Your task to perform on an android device: Search for vegetarian restaurants on Maps Image 0: 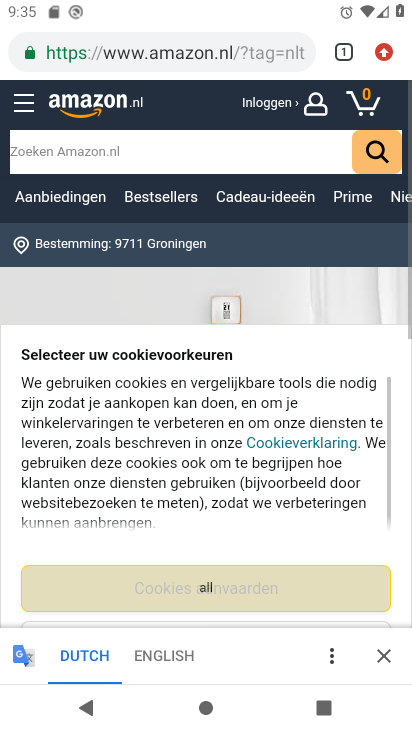
Step 0: press home button
Your task to perform on an android device: Search for vegetarian restaurants on Maps Image 1: 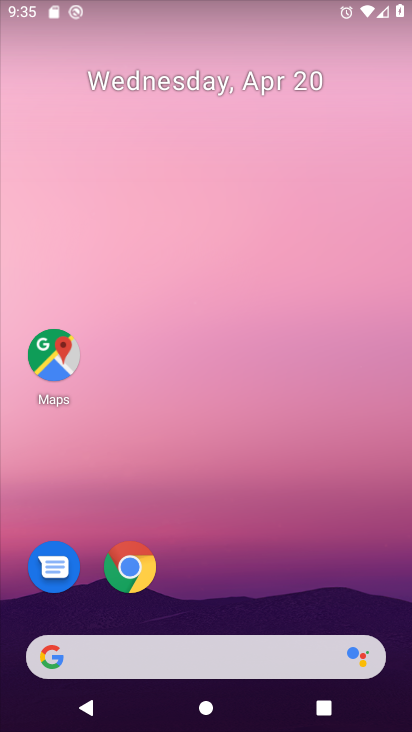
Step 1: drag from (339, 539) to (335, 219)
Your task to perform on an android device: Search for vegetarian restaurants on Maps Image 2: 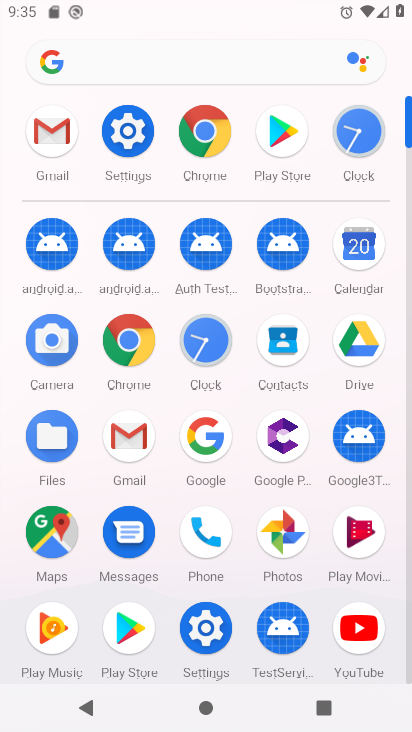
Step 2: click (56, 529)
Your task to perform on an android device: Search for vegetarian restaurants on Maps Image 3: 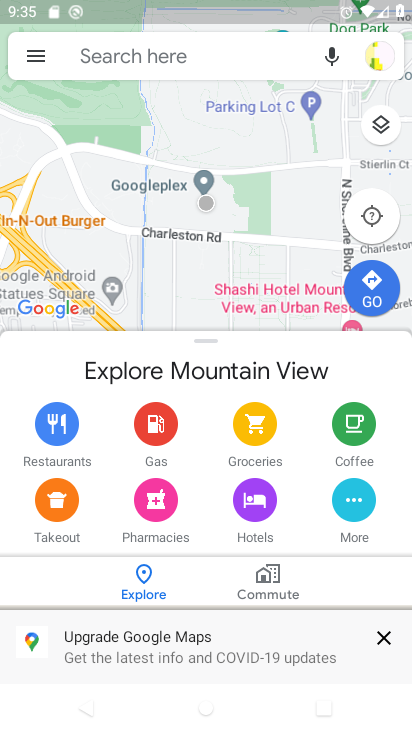
Step 3: click (210, 50)
Your task to perform on an android device: Search for vegetarian restaurants on Maps Image 4: 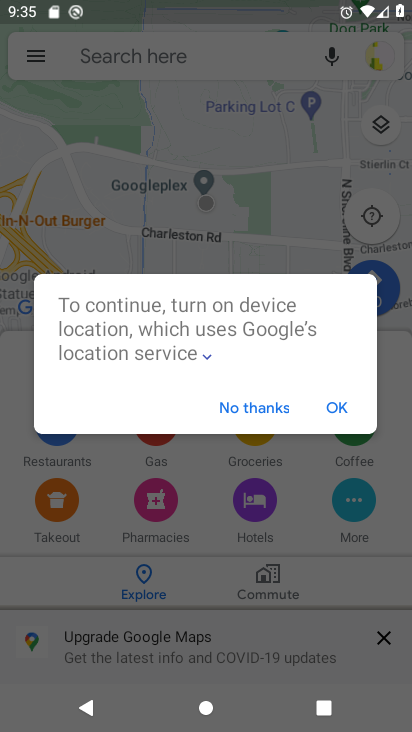
Step 4: click (246, 405)
Your task to perform on an android device: Search for vegetarian restaurants on Maps Image 5: 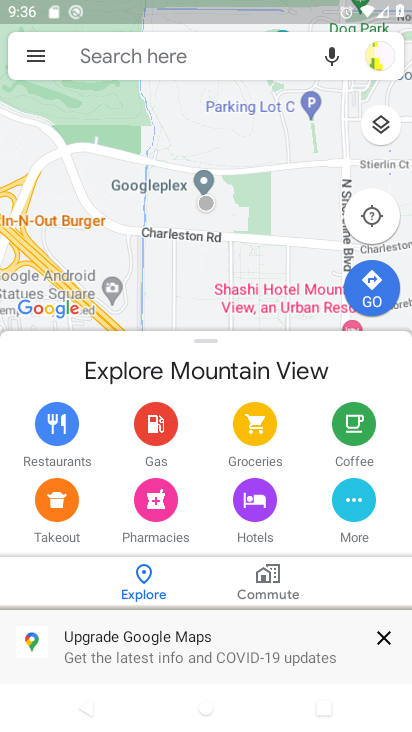
Step 5: click (198, 56)
Your task to perform on an android device: Search for vegetarian restaurants on Maps Image 6: 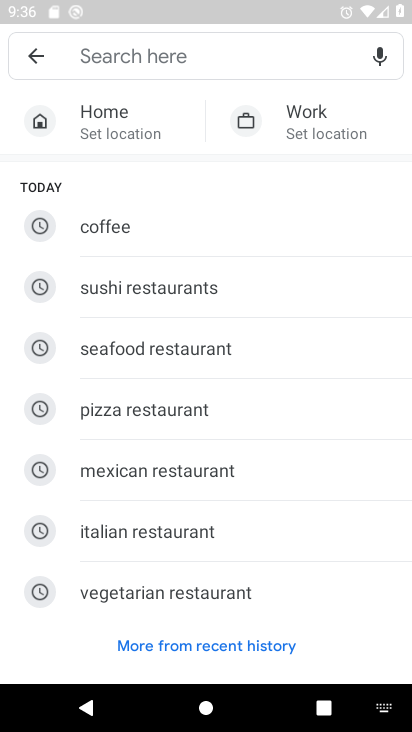
Step 6: type "vegetrain restaurants"
Your task to perform on an android device: Search for vegetarian restaurants on Maps Image 7: 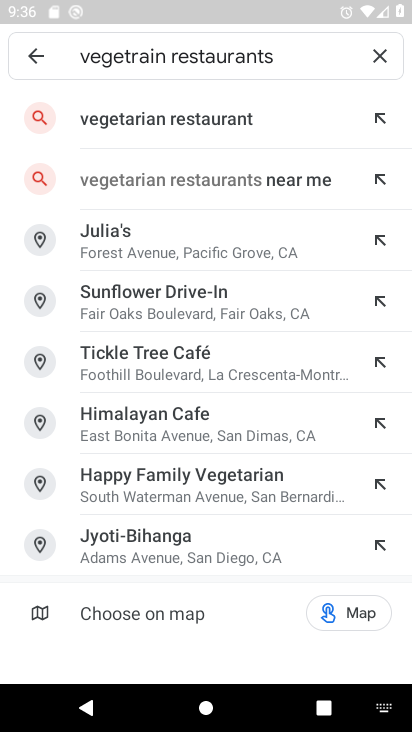
Step 7: click (211, 118)
Your task to perform on an android device: Search for vegetarian restaurants on Maps Image 8: 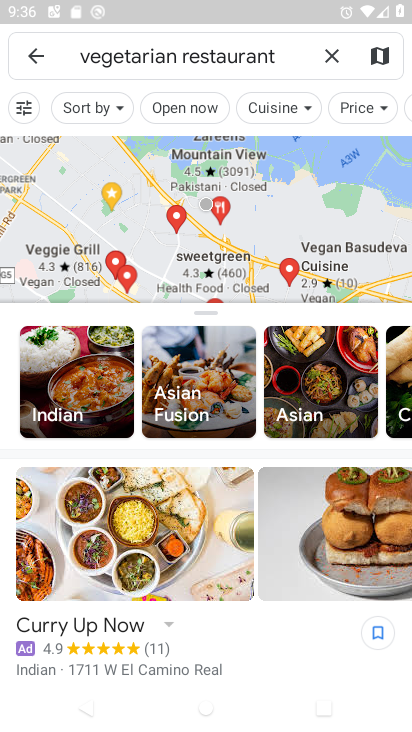
Step 8: task complete